Your task to perform on an android device: turn on javascript in the chrome app Image 0: 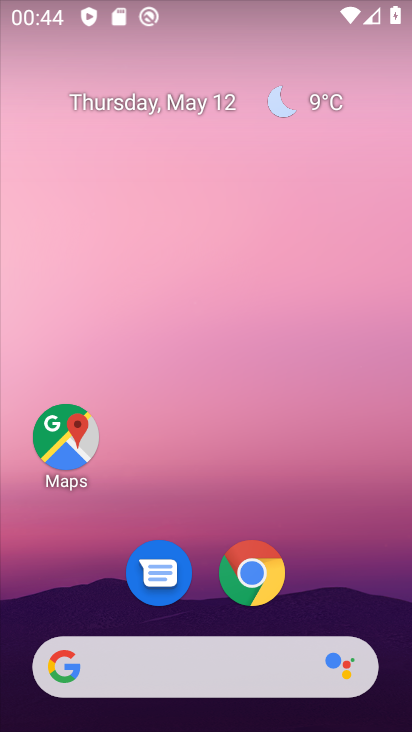
Step 0: click (266, 556)
Your task to perform on an android device: turn on javascript in the chrome app Image 1: 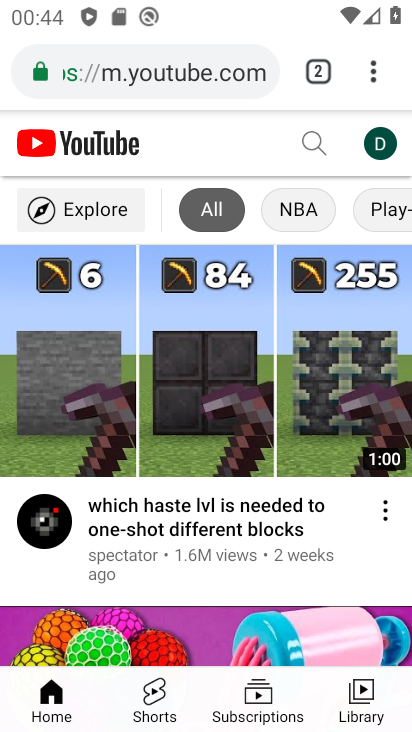
Step 1: click (379, 65)
Your task to perform on an android device: turn on javascript in the chrome app Image 2: 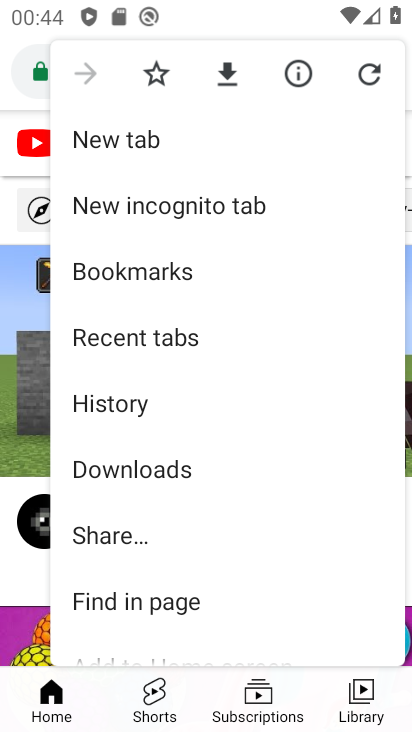
Step 2: drag from (140, 511) to (169, 226)
Your task to perform on an android device: turn on javascript in the chrome app Image 3: 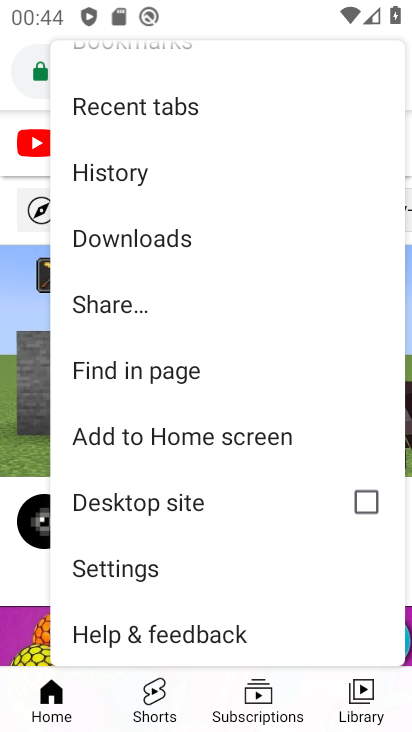
Step 3: click (154, 578)
Your task to perform on an android device: turn on javascript in the chrome app Image 4: 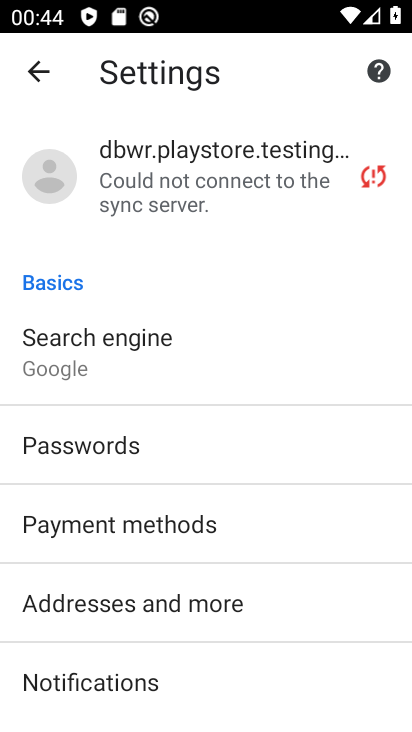
Step 4: drag from (142, 631) to (218, 290)
Your task to perform on an android device: turn on javascript in the chrome app Image 5: 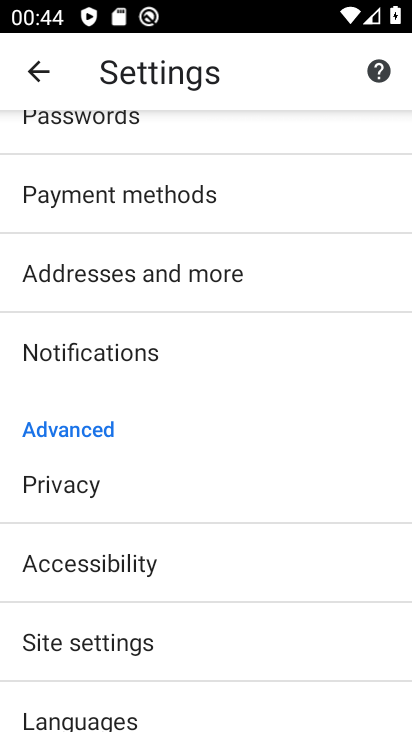
Step 5: click (129, 649)
Your task to perform on an android device: turn on javascript in the chrome app Image 6: 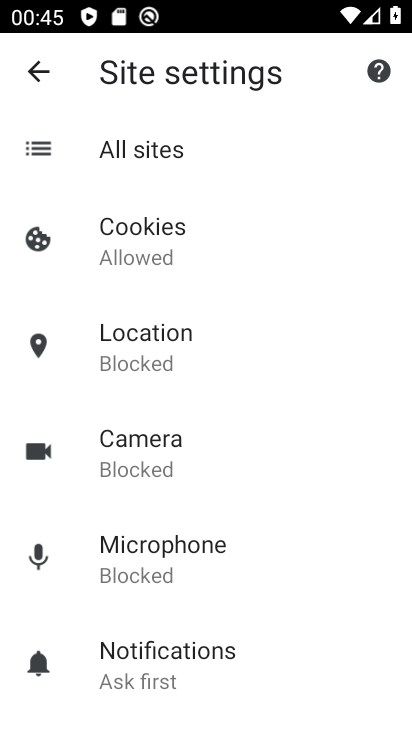
Step 6: drag from (146, 572) to (174, 374)
Your task to perform on an android device: turn on javascript in the chrome app Image 7: 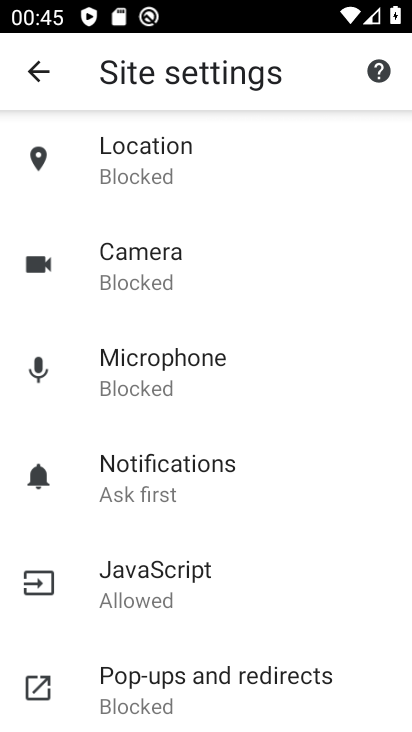
Step 7: click (138, 582)
Your task to perform on an android device: turn on javascript in the chrome app Image 8: 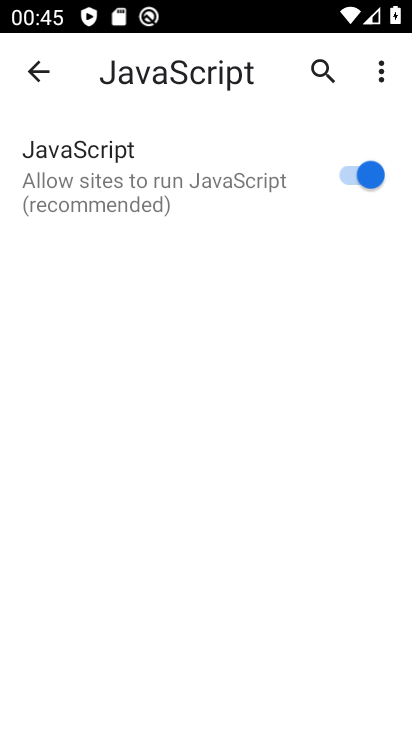
Step 8: task complete